Your task to perform on an android device: Go to settings Image 0: 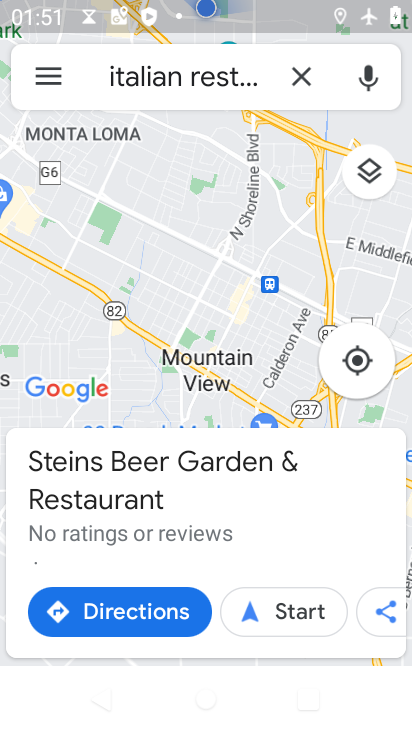
Step 0: press home button
Your task to perform on an android device: Go to settings Image 1: 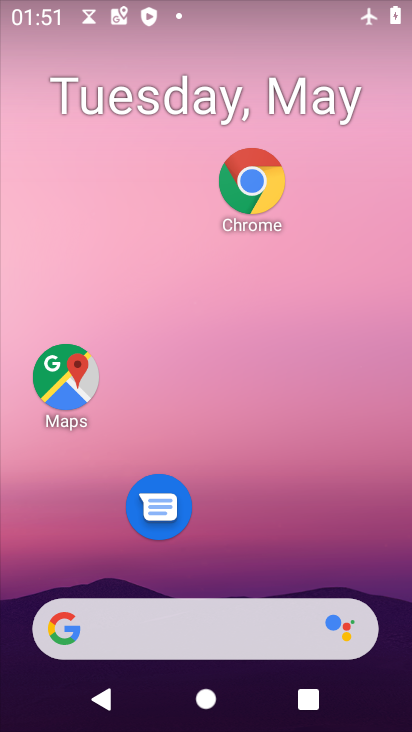
Step 1: drag from (293, 507) to (300, 258)
Your task to perform on an android device: Go to settings Image 2: 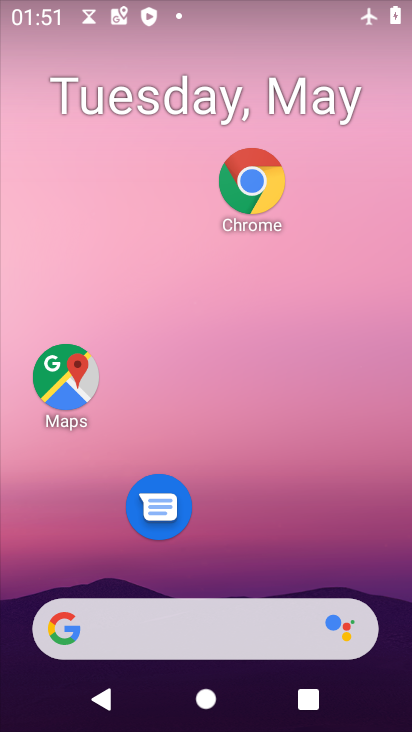
Step 2: drag from (322, 518) to (321, 237)
Your task to perform on an android device: Go to settings Image 3: 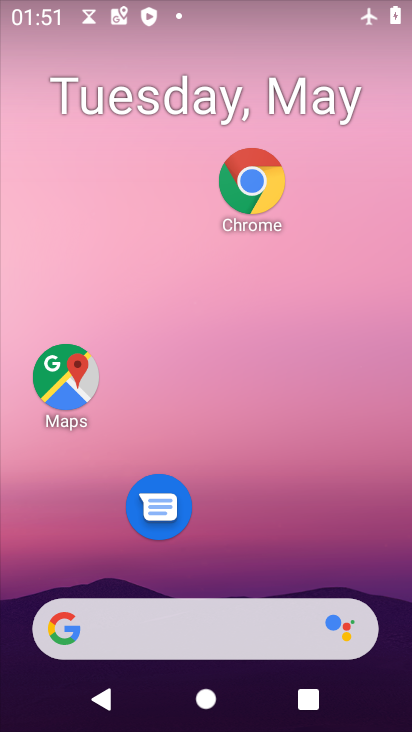
Step 3: drag from (277, 570) to (273, 279)
Your task to perform on an android device: Go to settings Image 4: 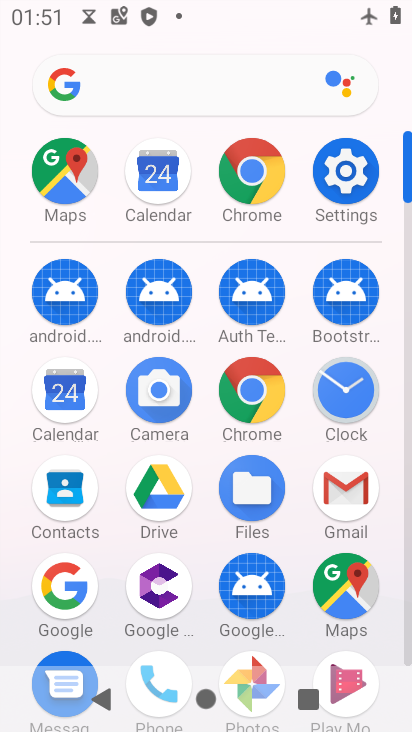
Step 4: click (340, 170)
Your task to perform on an android device: Go to settings Image 5: 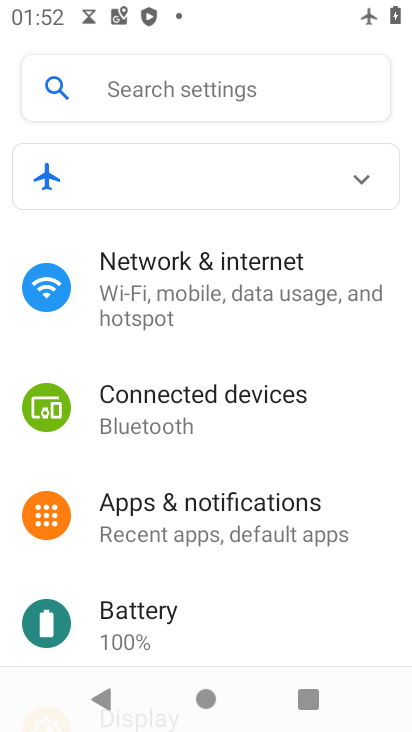
Step 5: task complete